Your task to perform on an android device: toggle javascript in the chrome app Image 0: 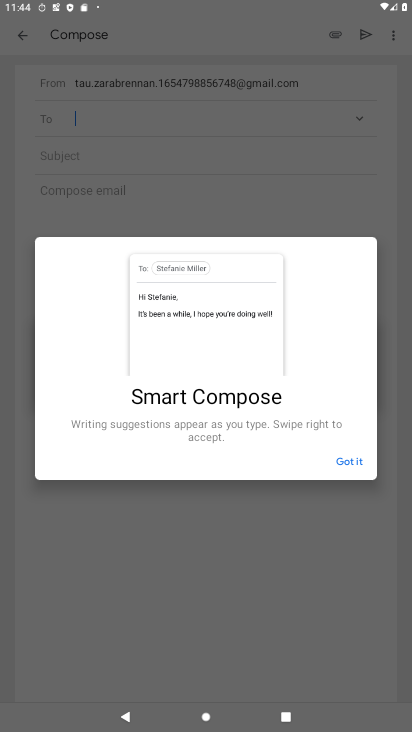
Step 0: press home button
Your task to perform on an android device: toggle javascript in the chrome app Image 1: 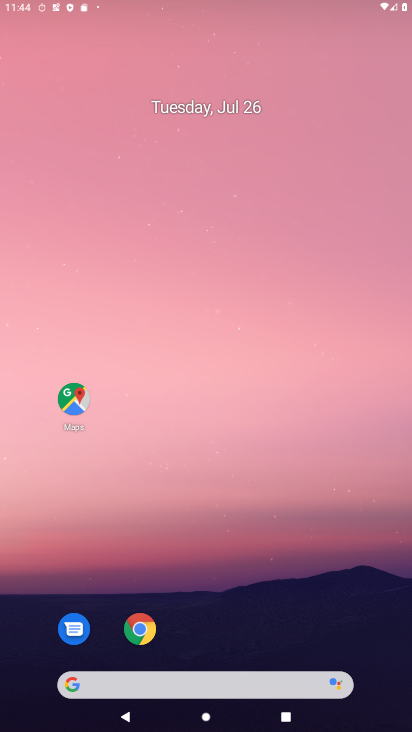
Step 1: drag from (362, 619) to (215, 34)
Your task to perform on an android device: toggle javascript in the chrome app Image 2: 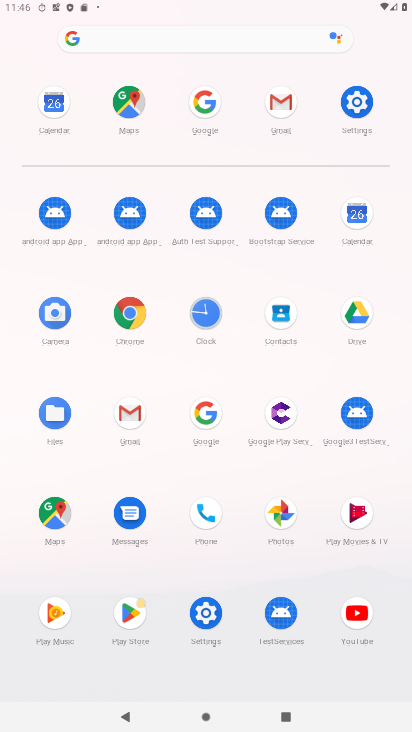
Step 2: click (127, 308)
Your task to perform on an android device: toggle javascript in the chrome app Image 3: 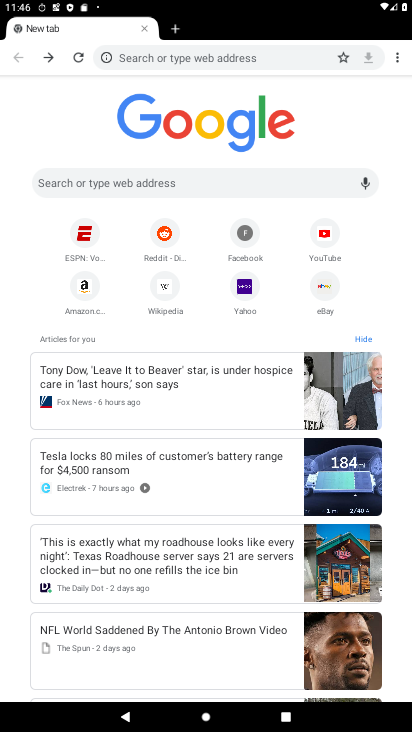
Step 3: click (396, 56)
Your task to perform on an android device: toggle javascript in the chrome app Image 4: 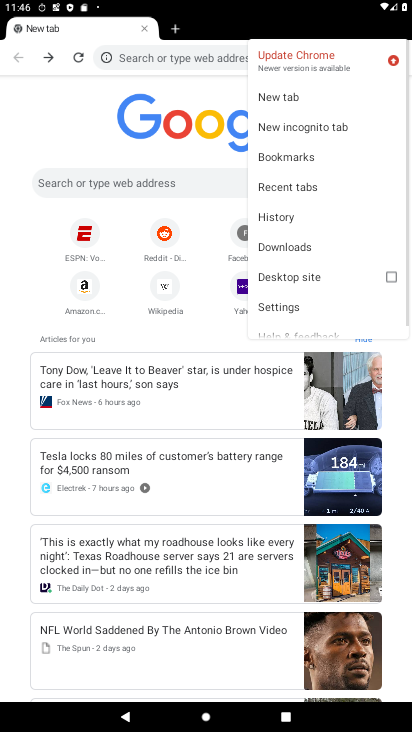
Step 4: click (282, 303)
Your task to perform on an android device: toggle javascript in the chrome app Image 5: 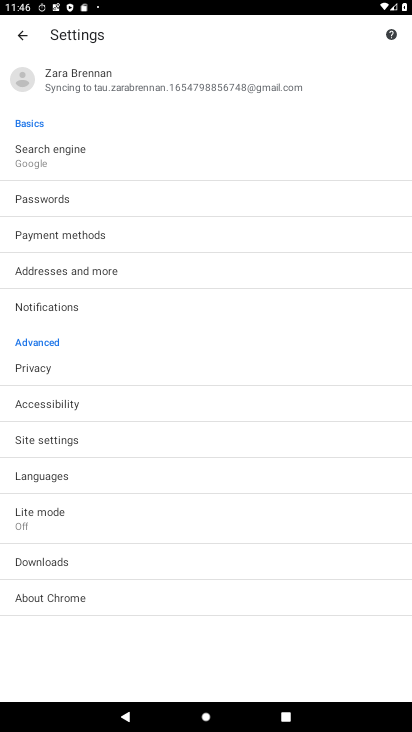
Step 5: click (53, 448)
Your task to perform on an android device: toggle javascript in the chrome app Image 6: 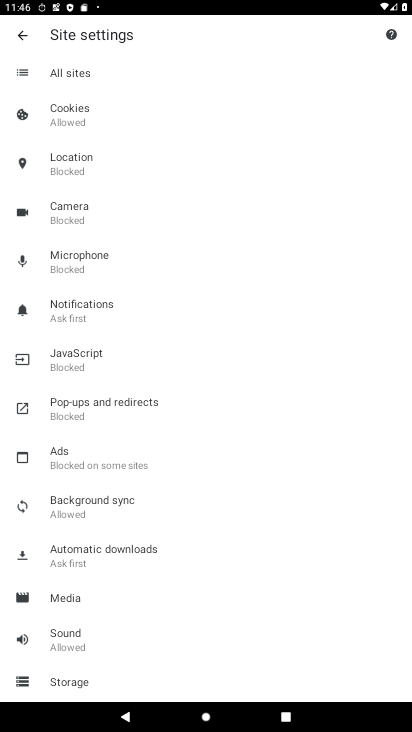
Step 6: click (86, 362)
Your task to perform on an android device: toggle javascript in the chrome app Image 7: 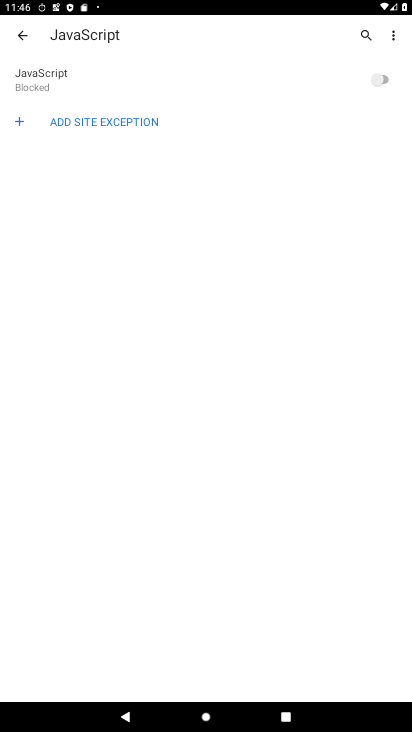
Step 7: click (384, 80)
Your task to perform on an android device: toggle javascript in the chrome app Image 8: 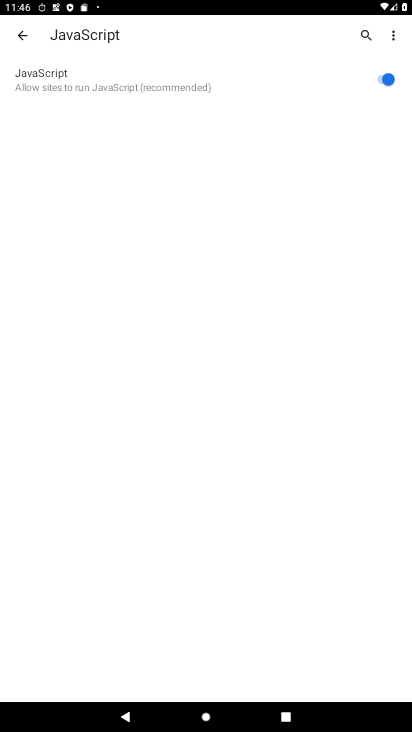
Step 8: task complete